Your task to perform on an android device: Open the calendar and show me this week's events? Image 0: 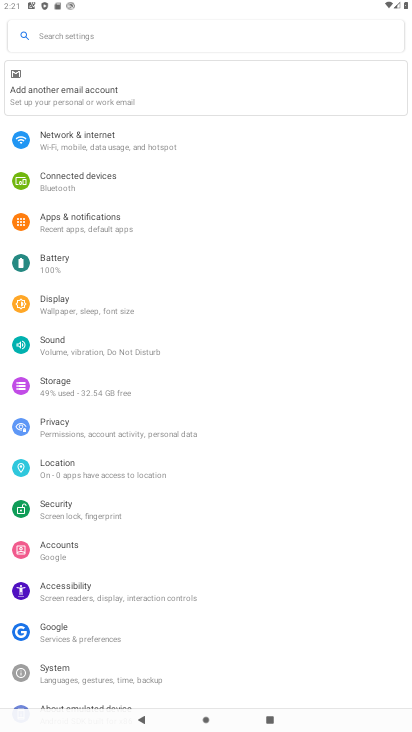
Step 0: press home button
Your task to perform on an android device: Open the calendar and show me this week's events? Image 1: 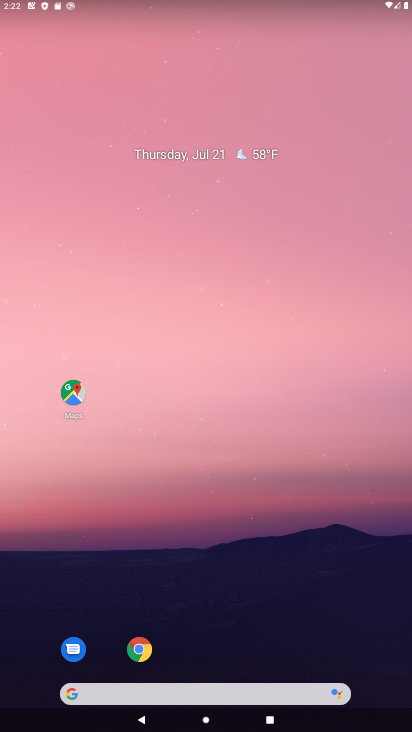
Step 1: drag from (285, 639) to (163, 3)
Your task to perform on an android device: Open the calendar and show me this week's events? Image 2: 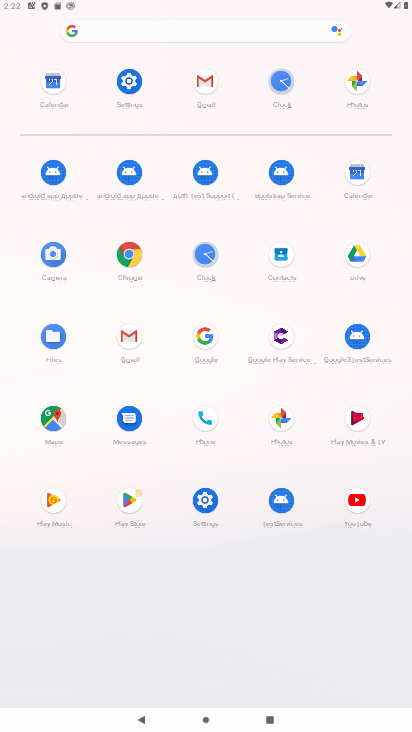
Step 2: click (57, 108)
Your task to perform on an android device: Open the calendar and show me this week's events? Image 3: 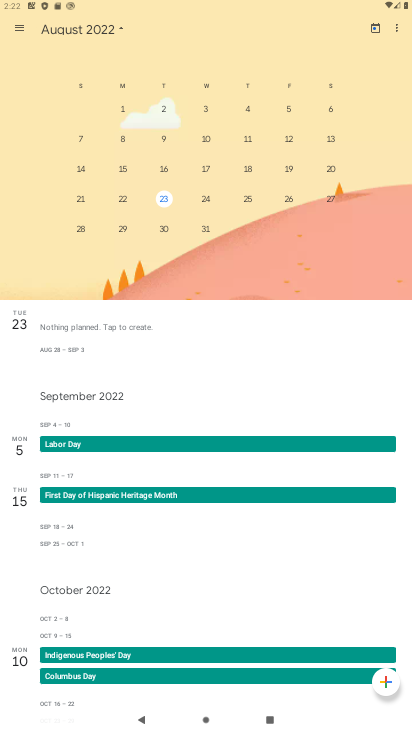
Step 3: task complete